Your task to perform on an android device: turn off sleep mode Image 0: 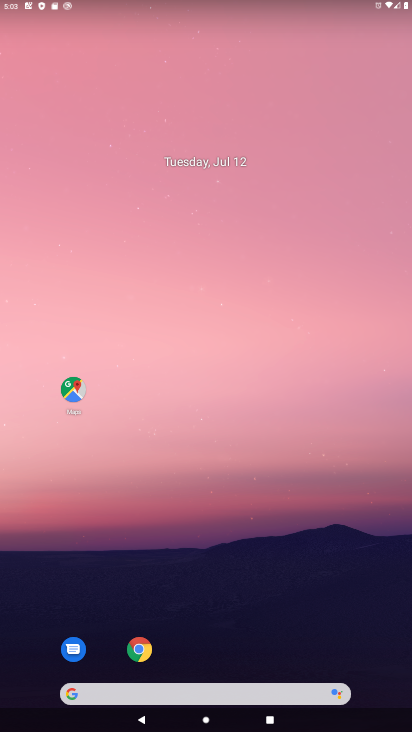
Step 0: drag from (187, 687) to (199, 145)
Your task to perform on an android device: turn off sleep mode Image 1: 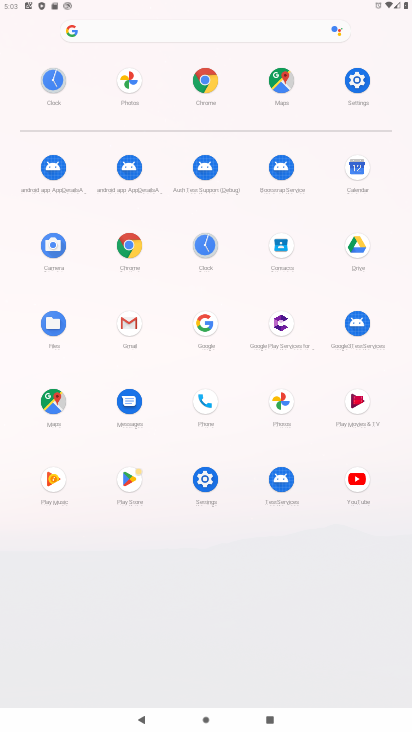
Step 1: click (205, 479)
Your task to perform on an android device: turn off sleep mode Image 2: 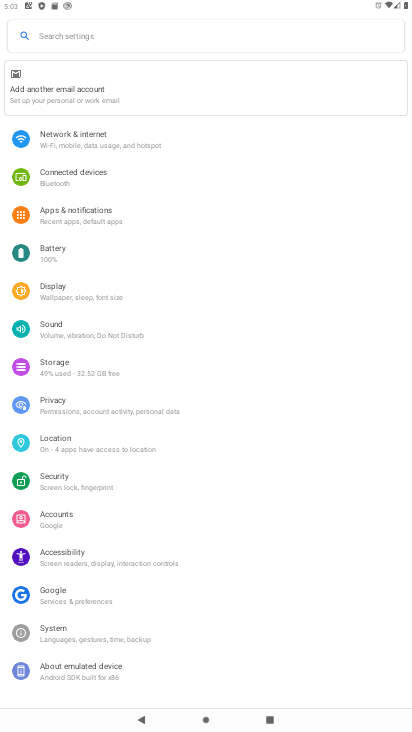
Step 2: click (94, 300)
Your task to perform on an android device: turn off sleep mode Image 3: 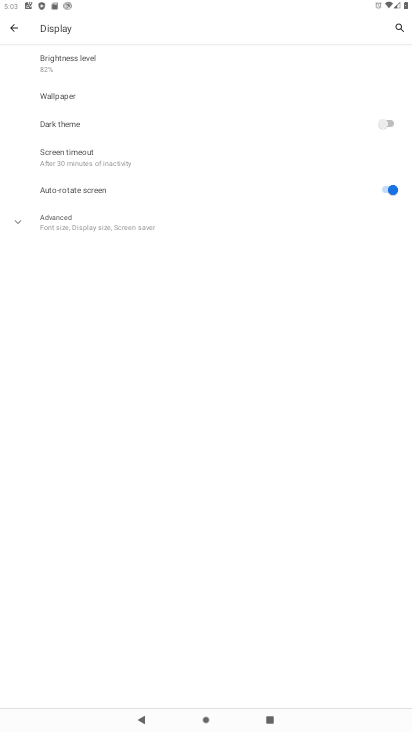
Step 3: click (68, 165)
Your task to perform on an android device: turn off sleep mode Image 4: 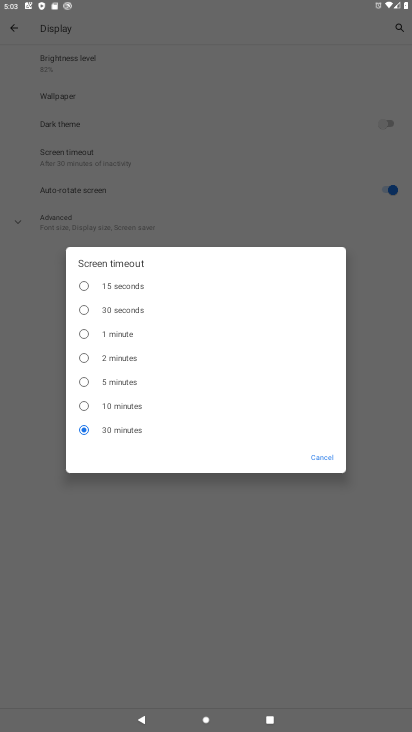
Step 4: drag from (214, 359) to (206, 477)
Your task to perform on an android device: turn off sleep mode Image 5: 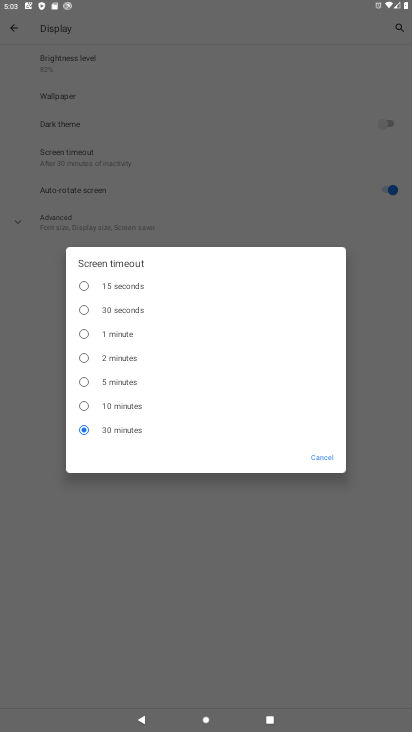
Step 5: click (322, 455)
Your task to perform on an android device: turn off sleep mode Image 6: 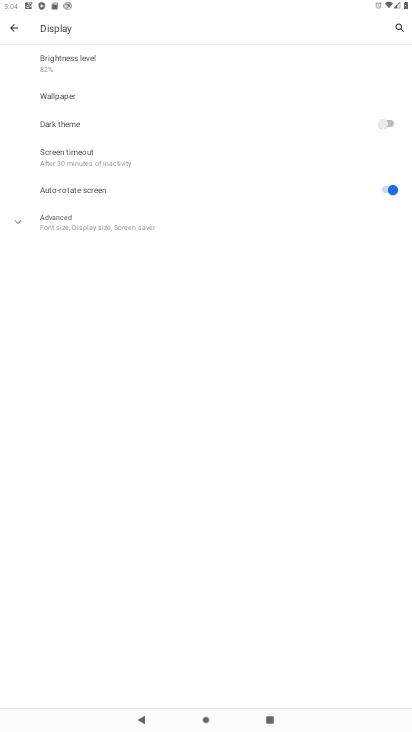
Step 6: click (79, 194)
Your task to perform on an android device: turn off sleep mode Image 7: 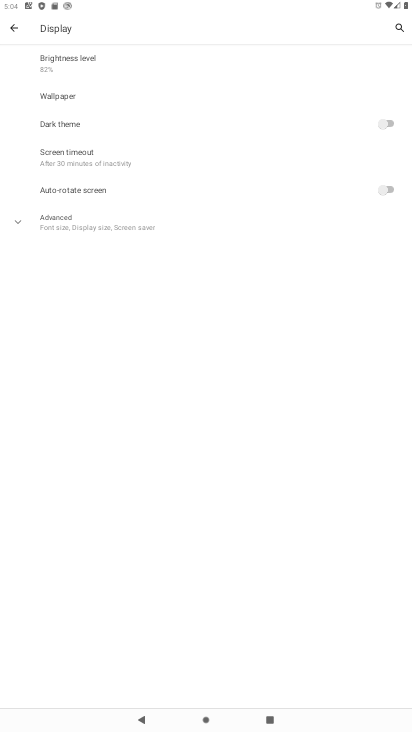
Step 7: click (69, 216)
Your task to perform on an android device: turn off sleep mode Image 8: 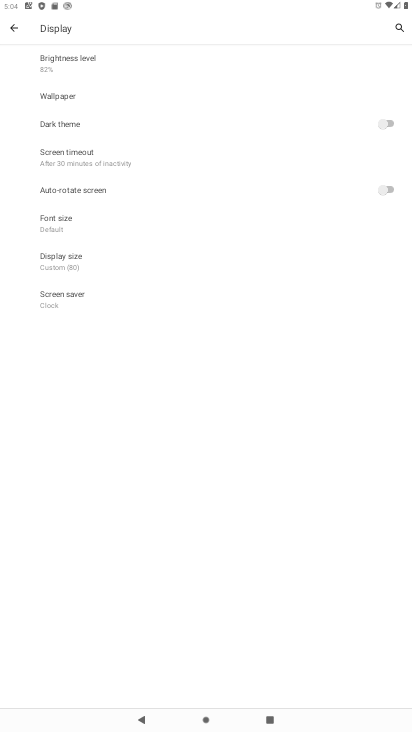
Step 8: click (89, 298)
Your task to perform on an android device: turn off sleep mode Image 9: 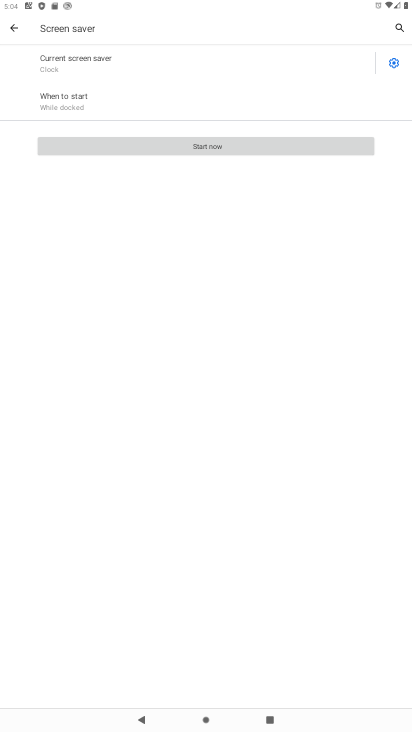
Step 9: click (82, 64)
Your task to perform on an android device: turn off sleep mode Image 10: 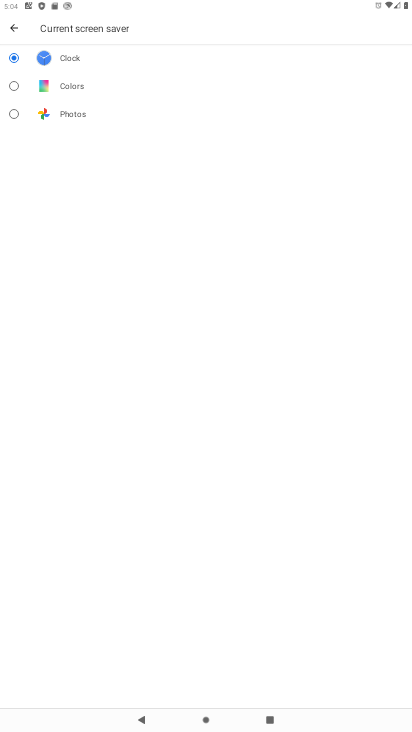
Step 10: task complete